Your task to perform on an android device: read, delete, or share a saved page in the chrome app Image 0: 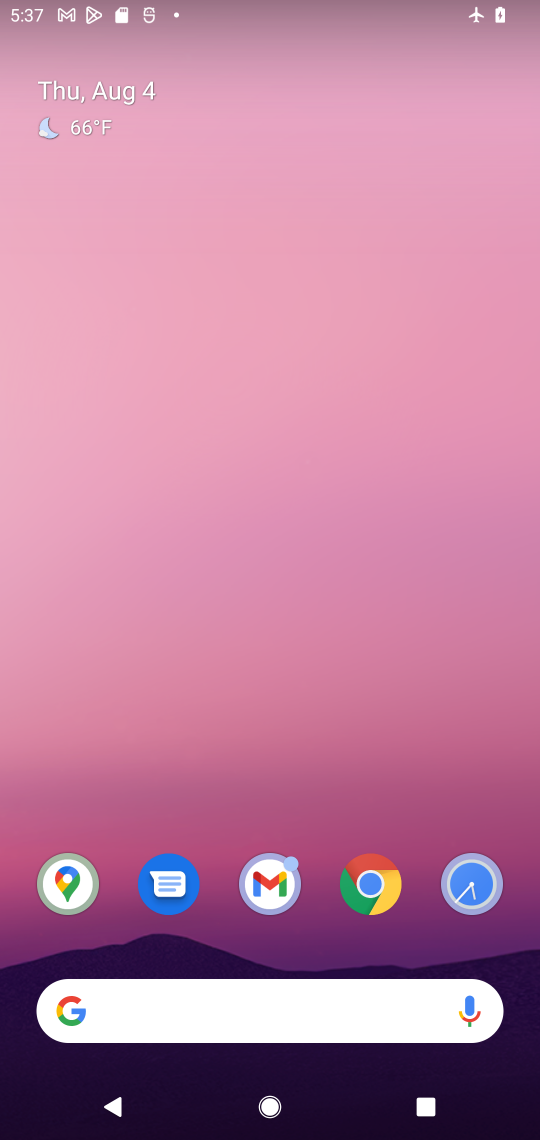
Step 0: click (369, 893)
Your task to perform on an android device: read, delete, or share a saved page in the chrome app Image 1: 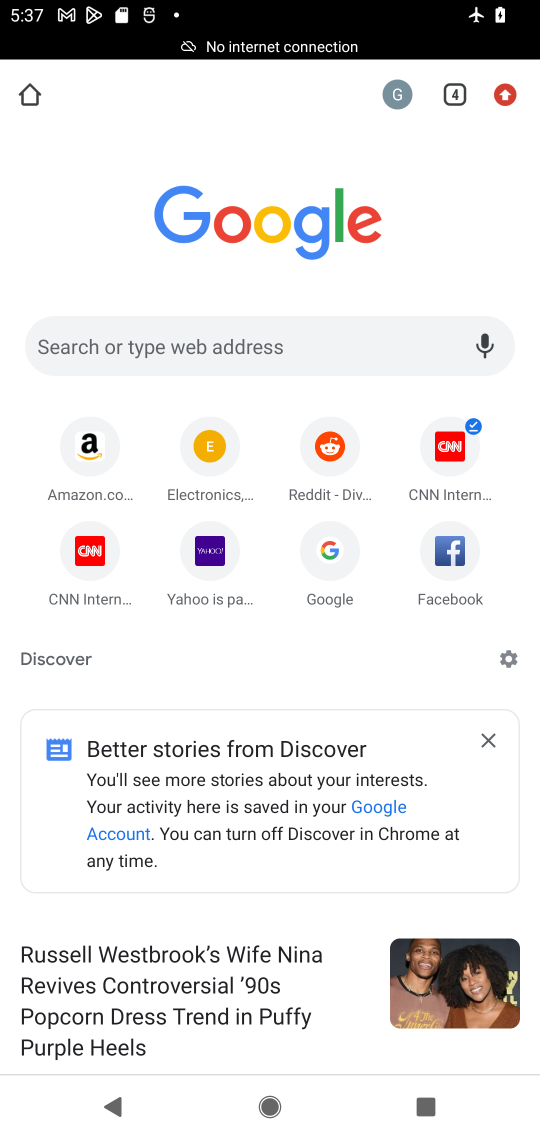
Step 1: task complete